Your task to perform on an android device: turn off notifications settings in the gmail app Image 0: 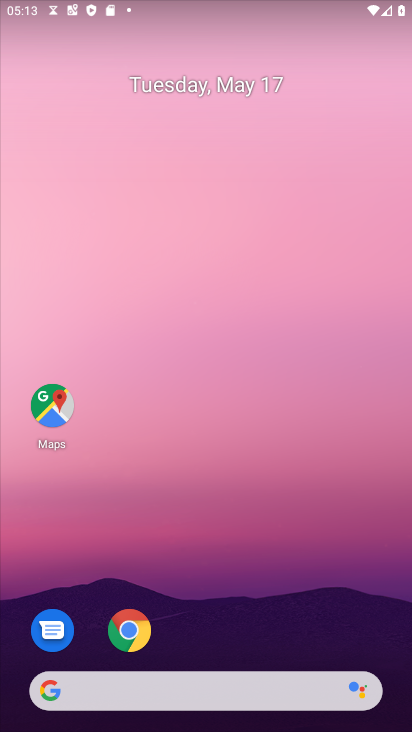
Step 0: drag from (294, 585) to (255, 49)
Your task to perform on an android device: turn off notifications settings in the gmail app Image 1: 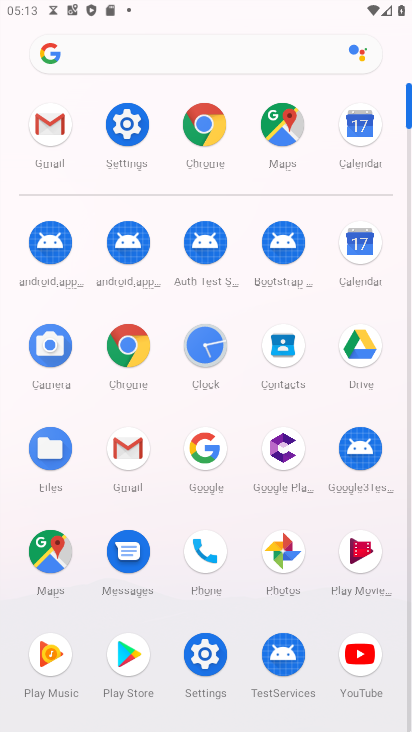
Step 1: click (53, 129)
Your task to perform on an android device: turn off notifications settings in the gmail app Image 2: 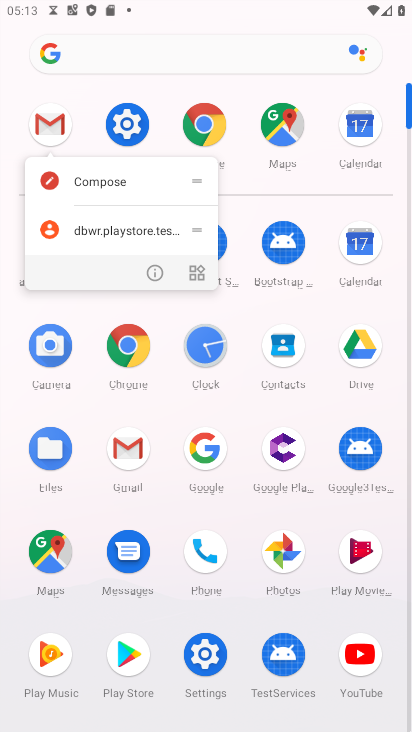
Step 2: click (151, 268)
Your task to perform on an android device: turn off notifications settings in the gmail app Image 3: 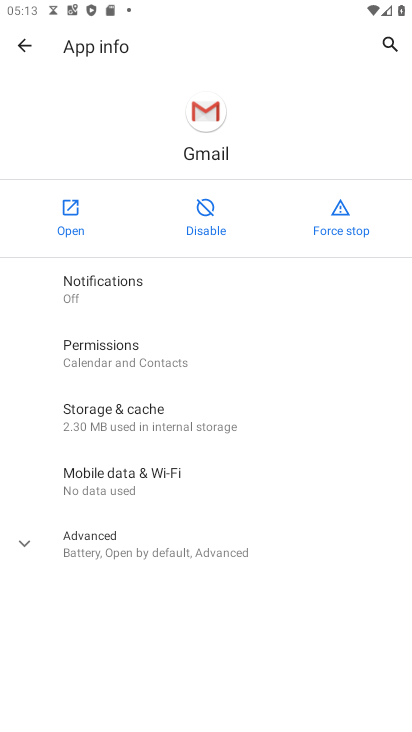
Step 3: task complete